Your task to perform on an android device: Search for the best gaming mouse on Best Buy. Image 0: 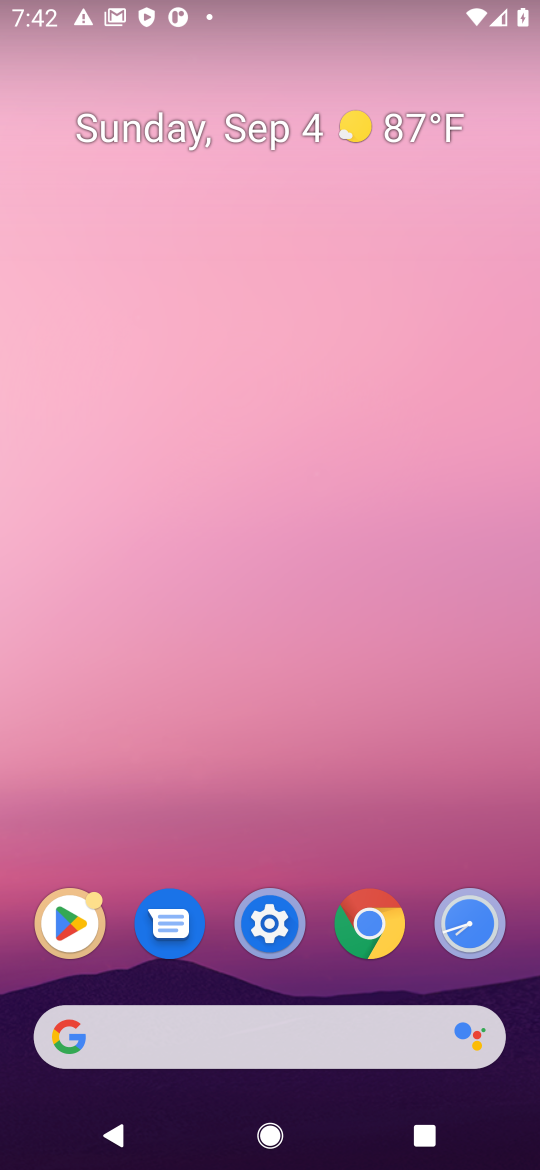
Step 0: press home button
Your task to perform on an android device: Search for the best gaming mouse on Best Buy. Image 1: 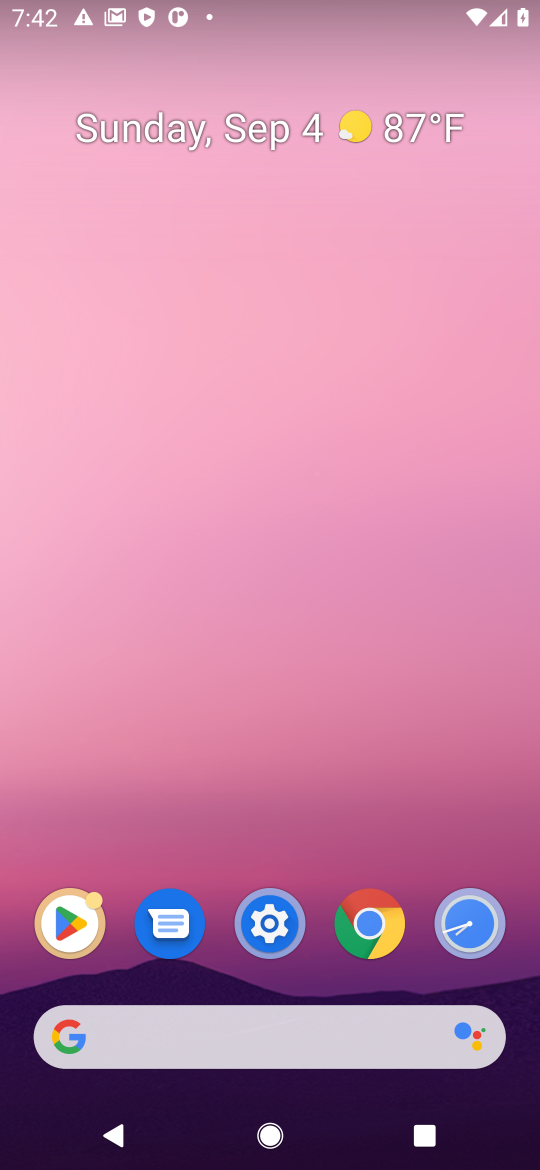
Step 1: click (419, 1044)
Your task to perform on an android device: Search for the best gaming mouse on Best Buy. Image 2: 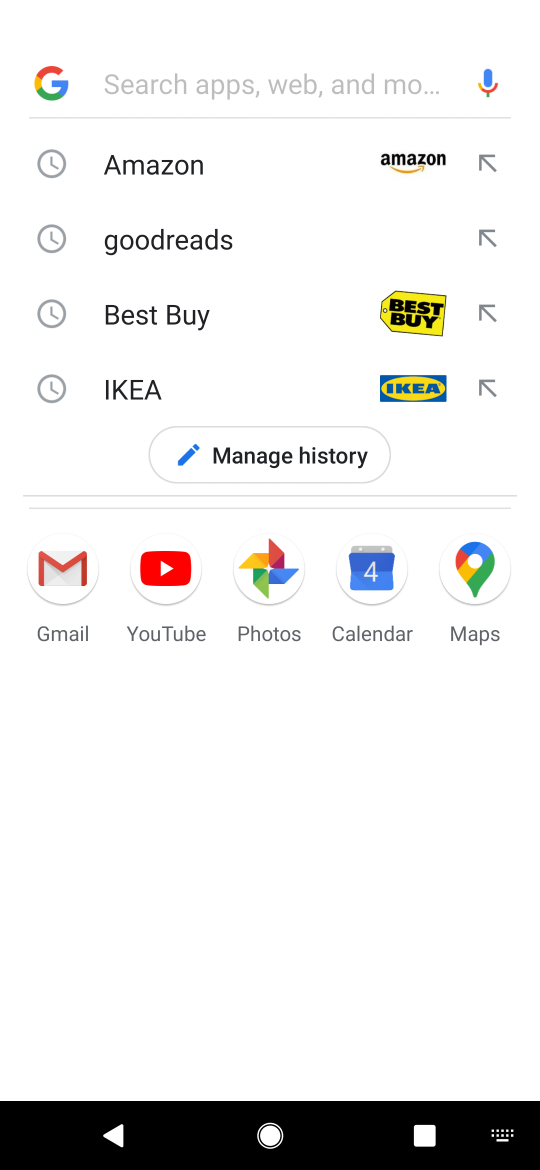
Step 2: press enter
Your task to perform on an android device: Search for the best gaming mouse on Best Buy. Image 3: 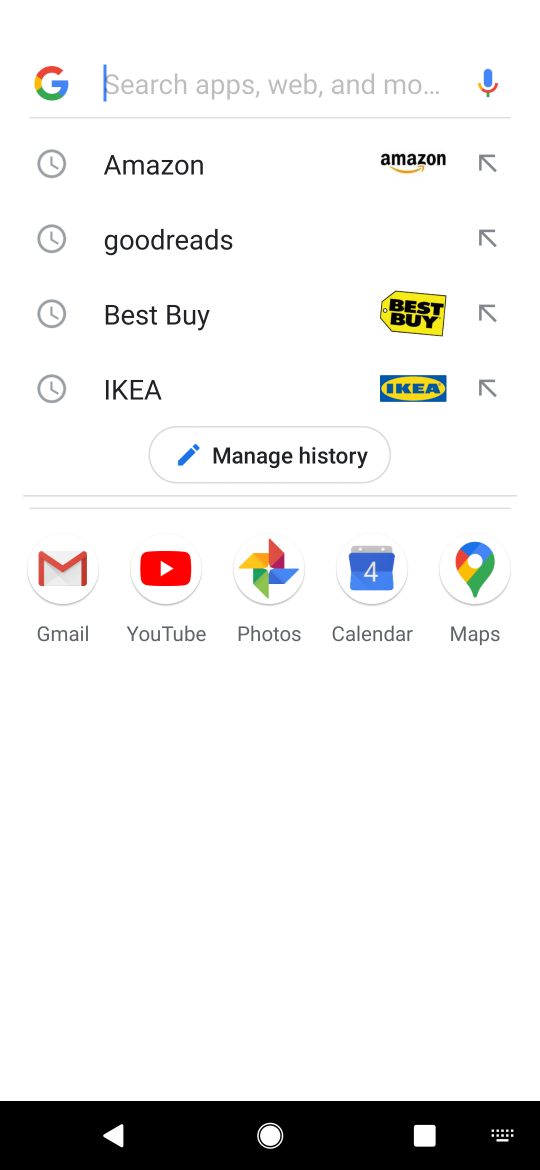
Step 3: type "best buy"
Your task to perform on an android device: Search for the best gaming mouse on Best Buy. Image 4: 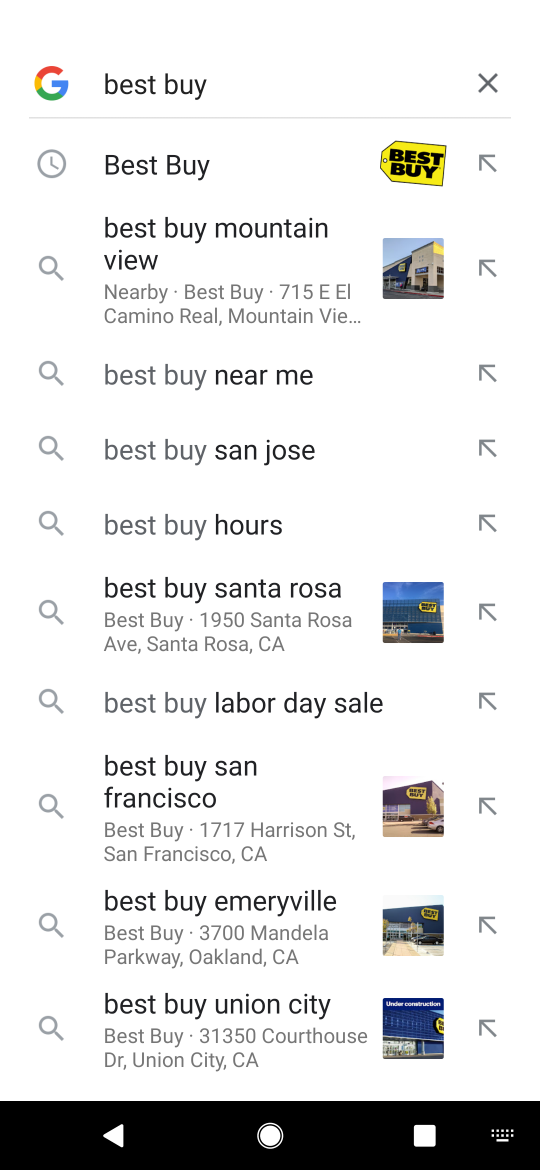
Step 4: click (246, 165)
Your task to perform on an android device: Search for the best gaming mouse on Best Buy. Image 5: 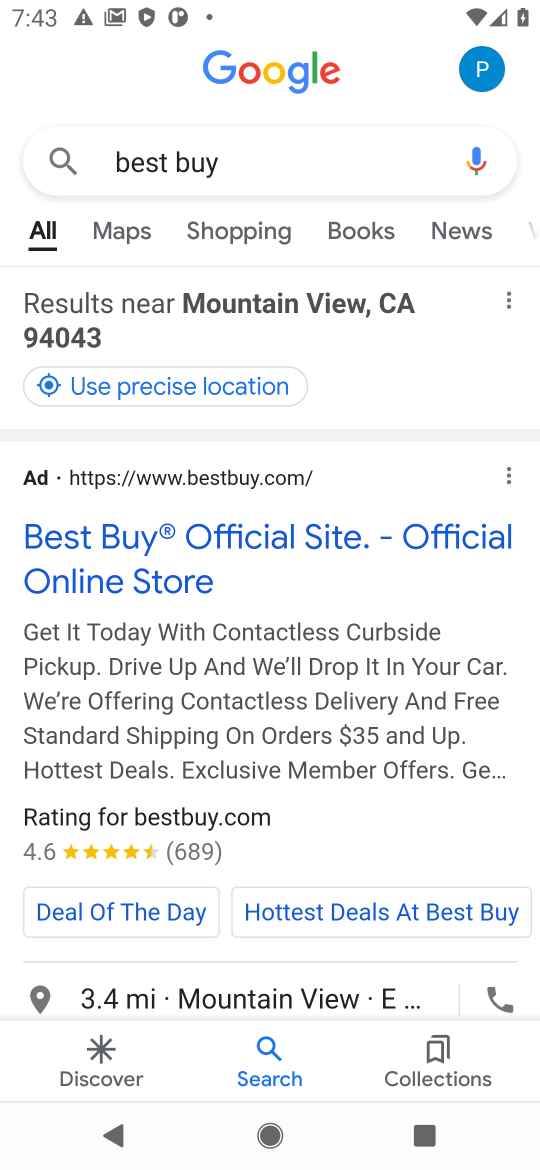
Step 5: click (116, 537)
Your task to perform on an android device: Search for the best gaming mouse on Best Buy. Image 6: 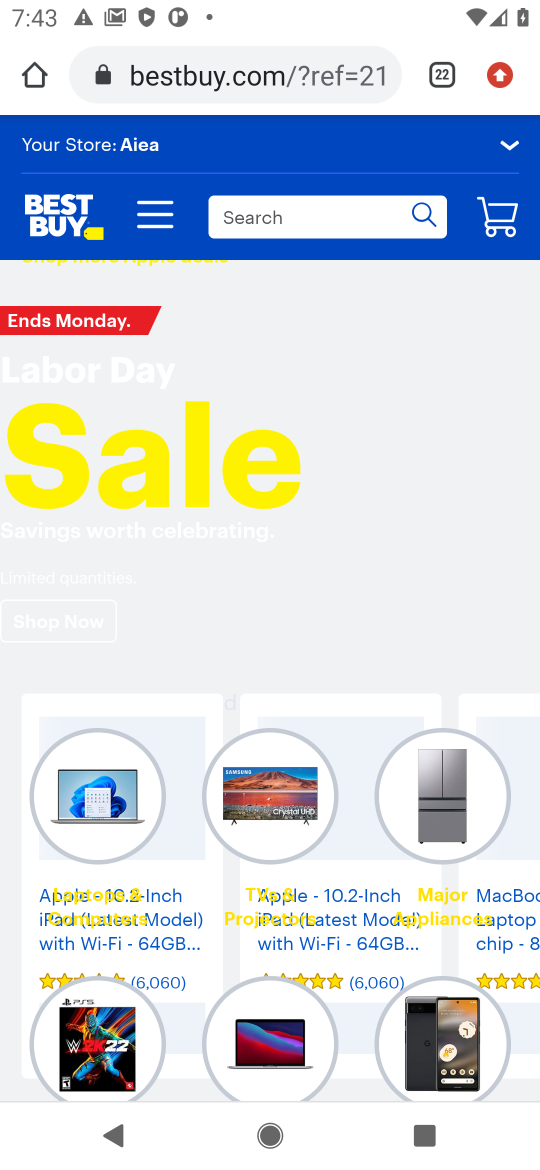
Step 6: click (308, 210)
Your task to perform on an android device: Search for the best gaming mouse on Best Buy. Image 7: 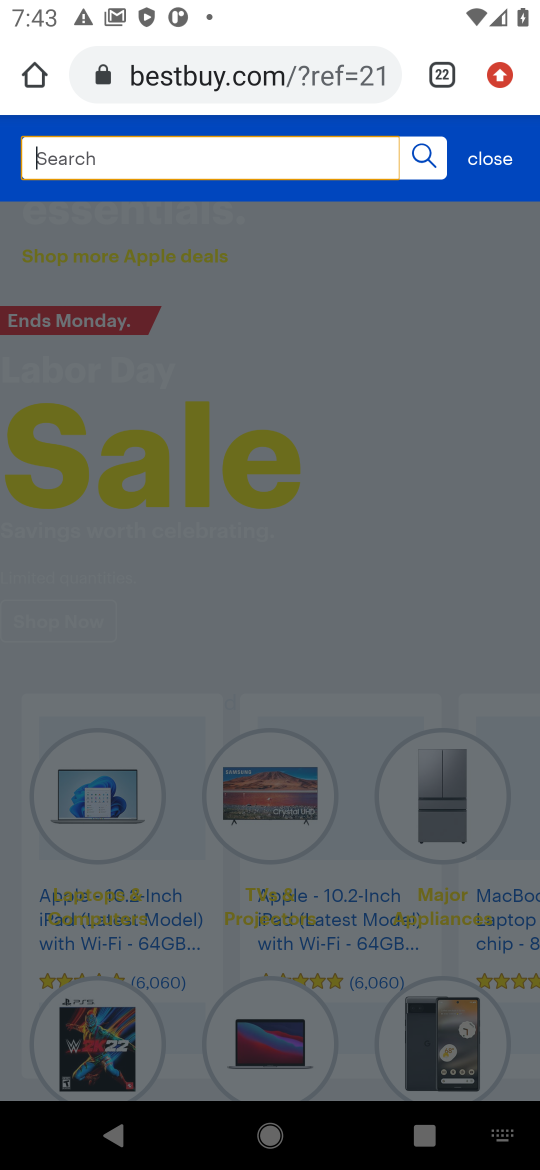
Step 7: press enter
Your task to perform on an android device: Search for the best gaming mouse on Best Buy. Image 8: 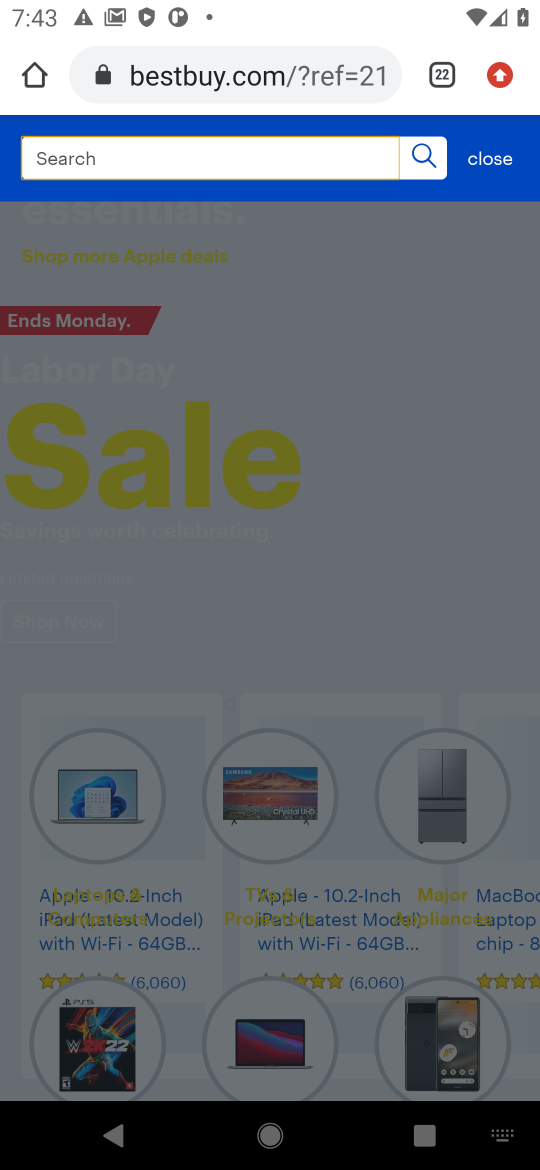
Step 8: type "gaming mouse"
Your task to perform on an android device: Search for the best gaming mouse on Best Buy. Image 9: 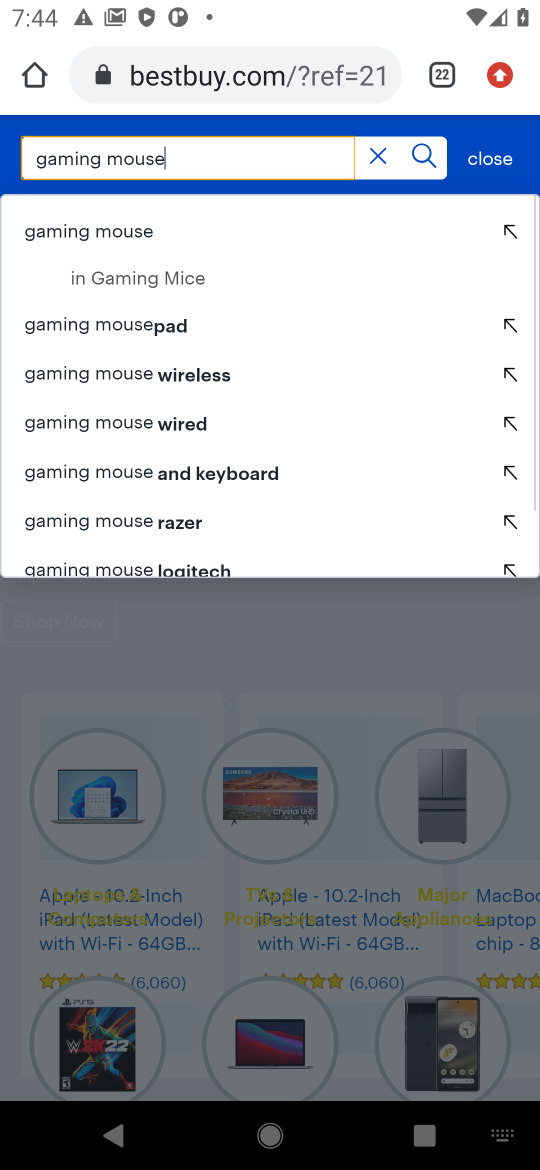
Step 9: click (426, 149)
Your task to perform on an android device: Search for the best gaming mouse on Best Buy. Image 10: 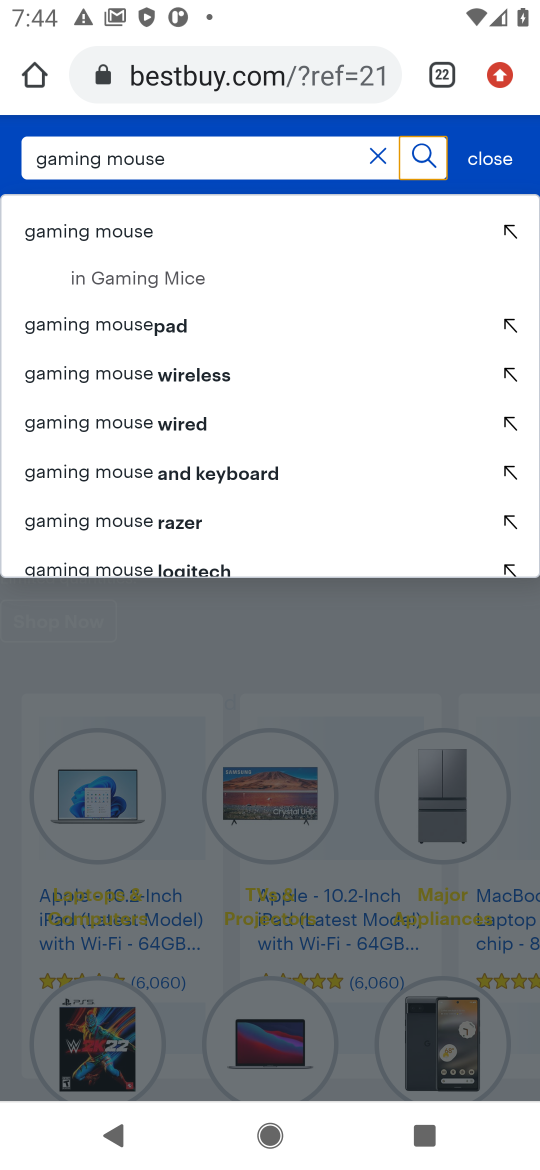
Step 10: click (124, 227)
Your task to perform on an android device: Search for the best gaming mouse on Best Buy. Image 11: 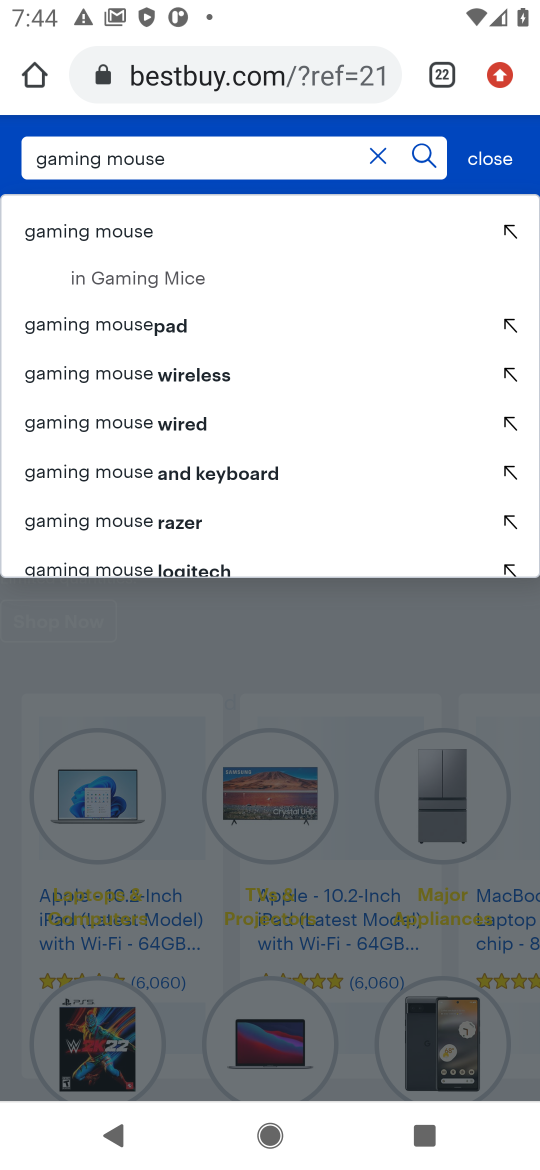
Step 11: click (82, 231)
Your task to perform on an android device: Search for the best gaming mouse on Best Buy. Image 12: 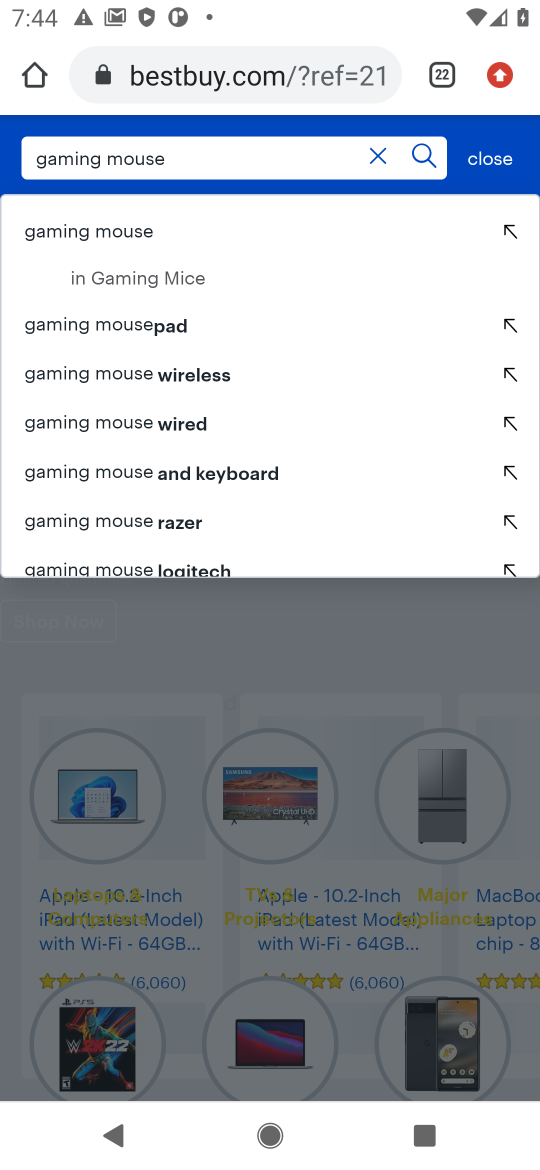
Step 12: click (424, 151)
Your task to perform on an android device: Search for the best gaming mouse on Best Buy. Image 13: 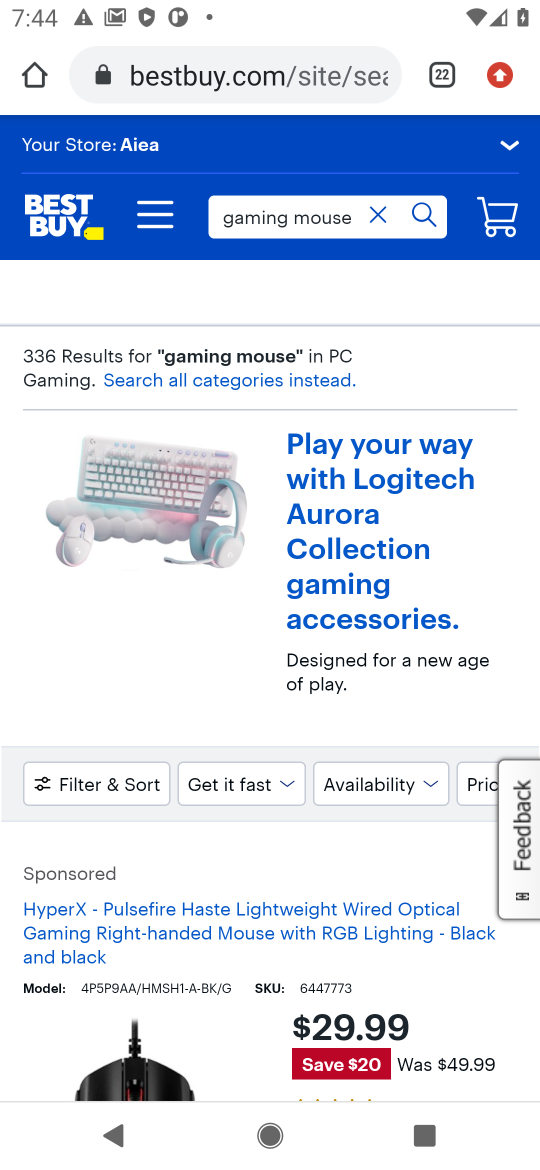
Step 13: task complete